Your task to perform on an android device: allow cookies in the chrome app Image 0: 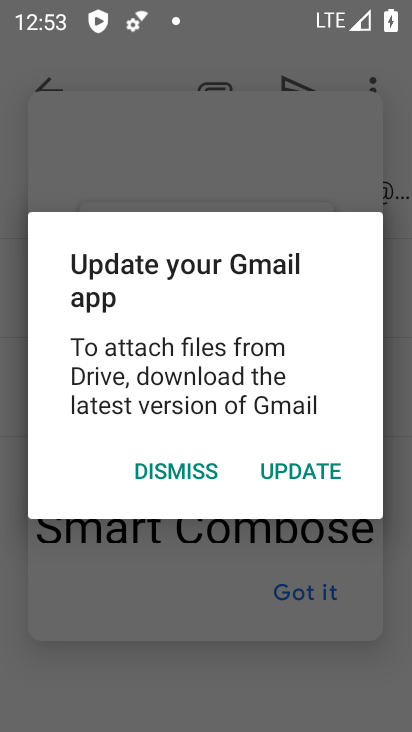
Step 0: press home button
Your task to perform on an android device: allow cookies in the chrome app Image 1: 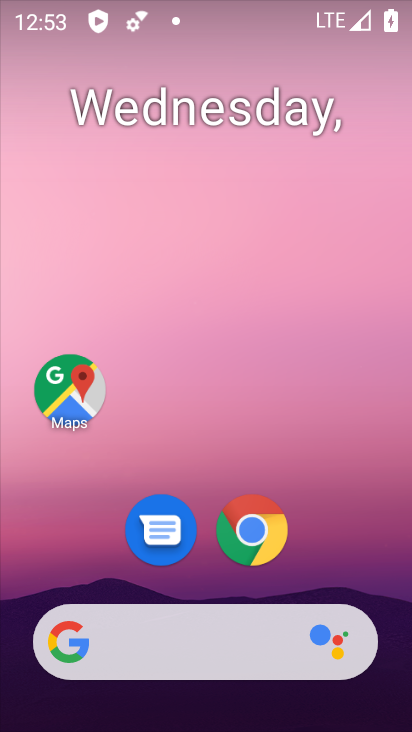
Step 1: drag from (339, 555) to (325, 112)
Your task to perform on an android device: allow cookies in the chrome app Image 2: 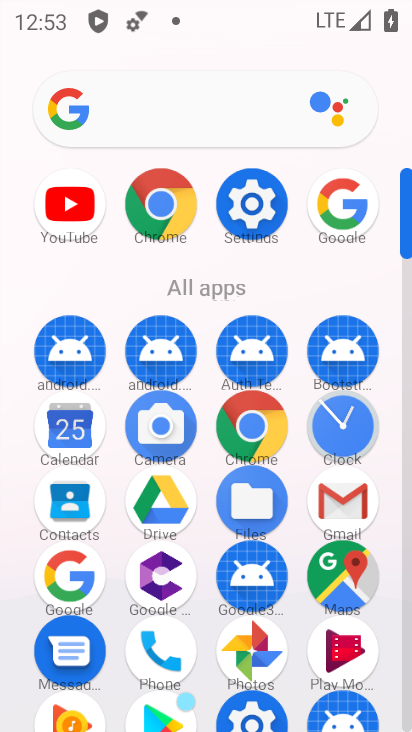
Step 2: click (246, 428)
Your task to perform on an android device: allow cookies in the chrome app Image 3: 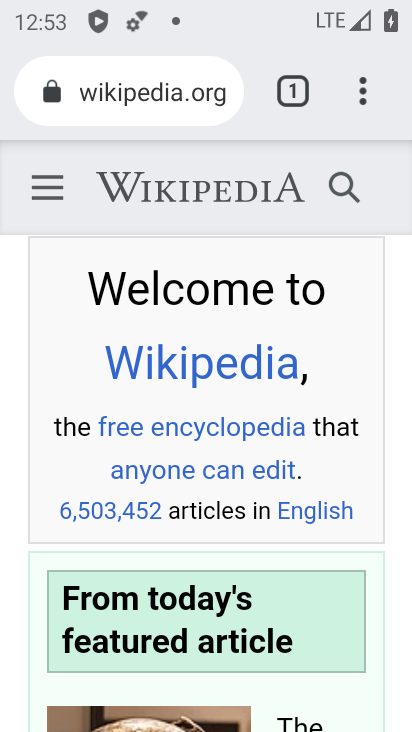
Step 3: drag from (369, 103) to (220, 567)
Your task to perform on an android device: allow cookies in the chrome app Image 4: 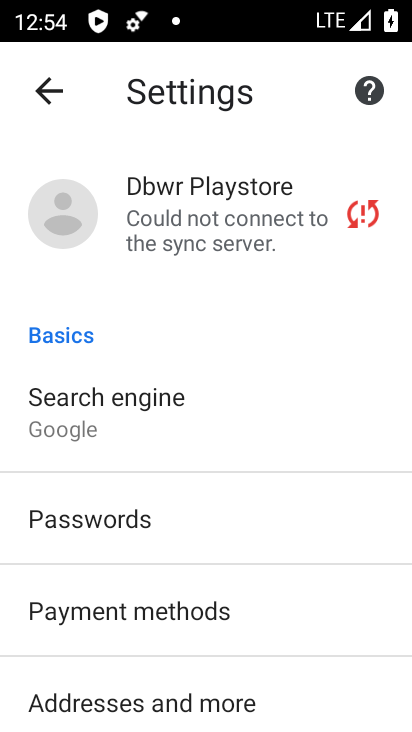
Step 4: drag from (280, 625) to (278, 260)
Your task to perform on an android device: allow cookies in the chrome app Image 5: 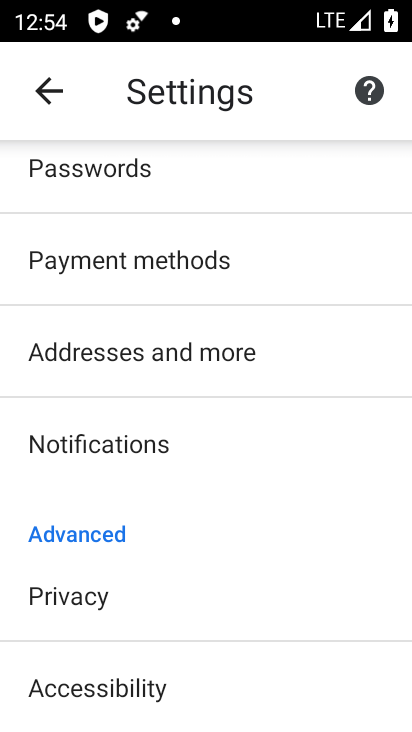
Step 5: drag from (289, 608) to (298, 261)
Your task to perform on an android device: allow cookies in the chrome app Image 6: 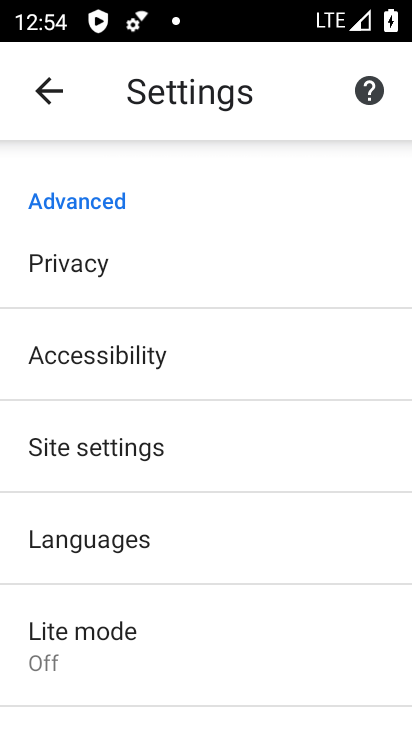
Step 6: click (181, 455)
Your task to perform on an android device: allow cookies in the chrome app Image 7: 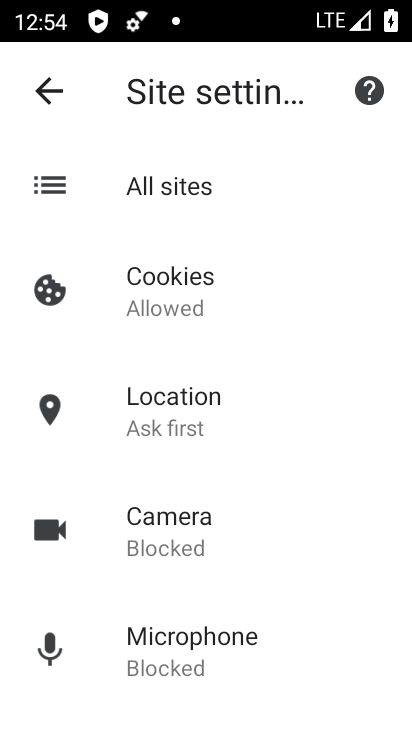
Step 7: click (207, 192)
Your task to perform on an android device: allow cookies in the chrome app Image 8: 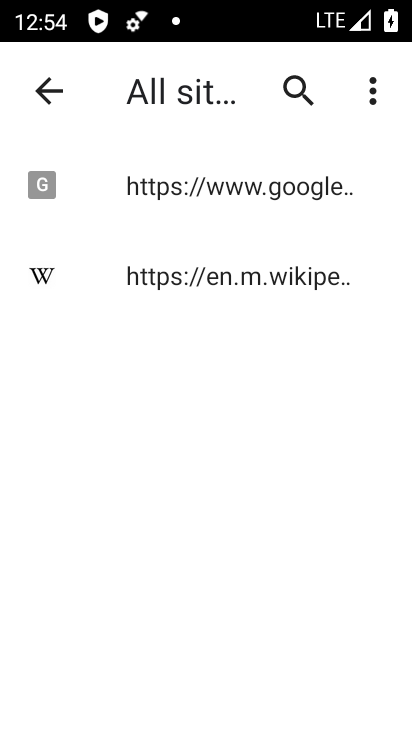
Step 8: click (54, 77)
Your task to perform on an android device: allow cookies in the chrome app Image 9: 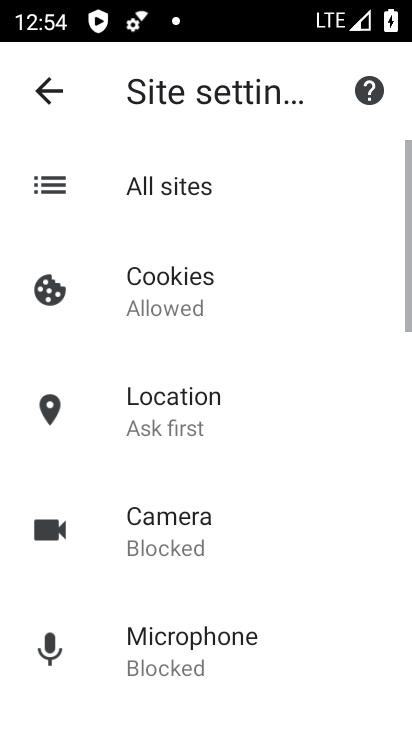
Step 9: click (210, 272)
Your task to perform on an android device: allow cookies in the chrome app Image 10: 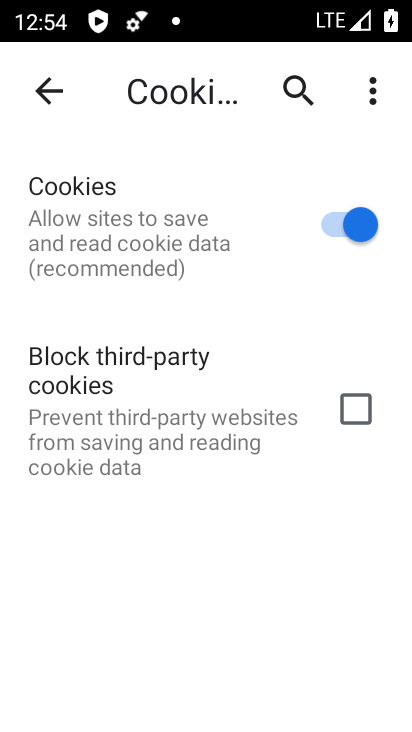
Step 10: task complete